Your task to perform on an android device: Open Yahoo.com Image 0: 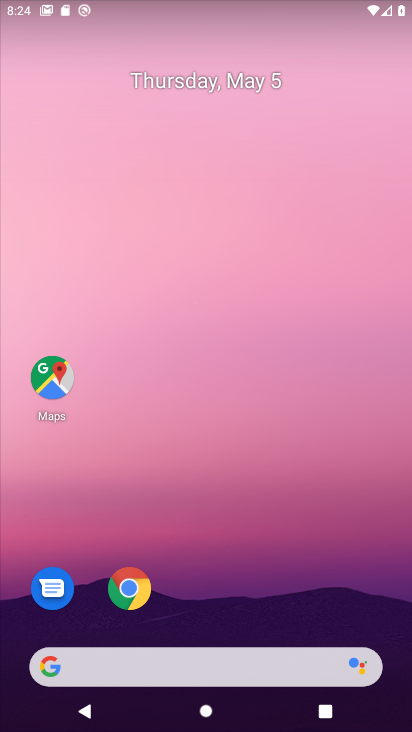
Step 0: click (128, 581)
Your task to perform on an android device: Open Yahoo.com Image 1: 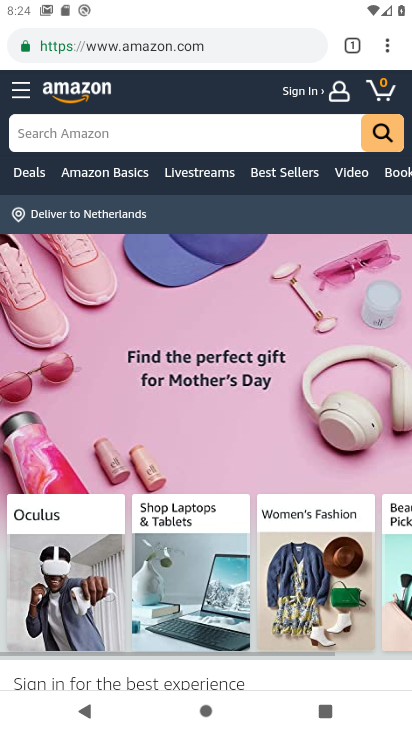
Step 1: click (345, 43)
Your task to perform on an android device: Open Yahoo.com Image 2: 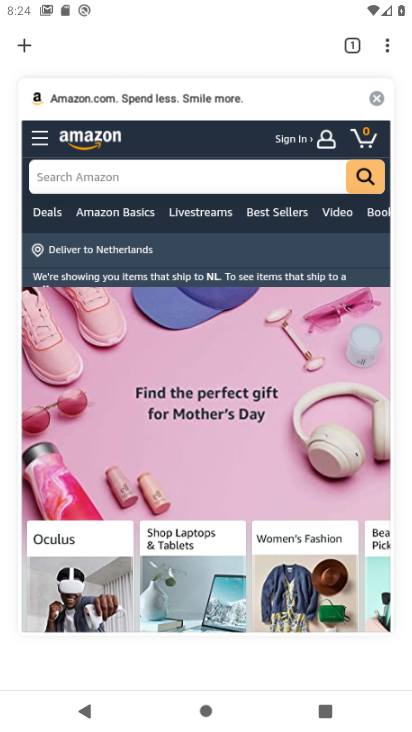
Step 2: click (174, 257)
Your task to perform on an android device: Open Yahoo.com Image 3: 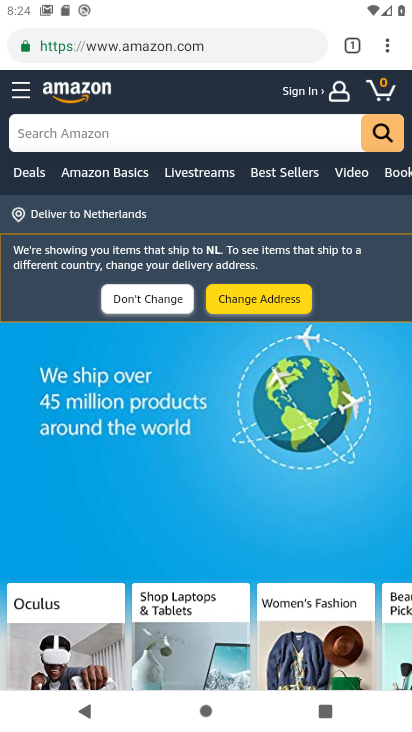
Step 3: click (81, 712)
Your task to perform on an android device: Open Yahoo.com Image 4: 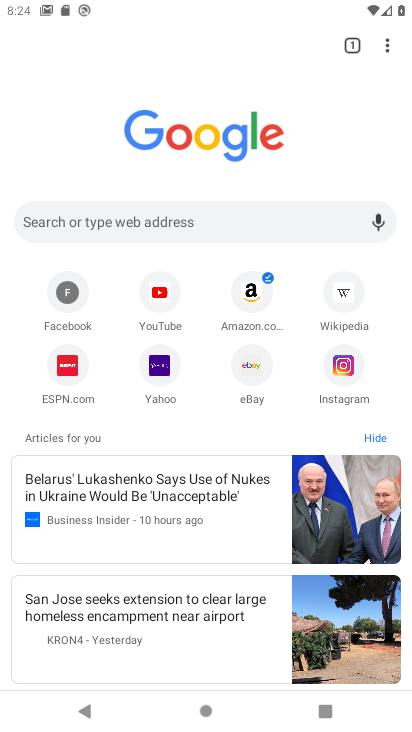
Step 4: click (159, 366)
Your task to perform on an android device: Open Yahoo.com Image 5: 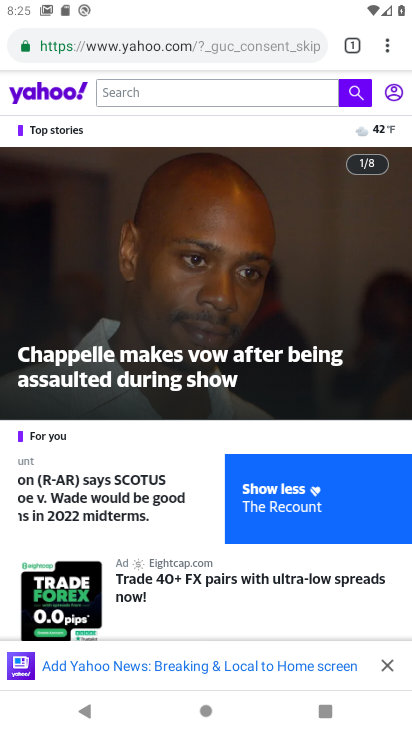
Step 5: task complete